Your task to perform on an android device: clear history in the chrome app Image 0: 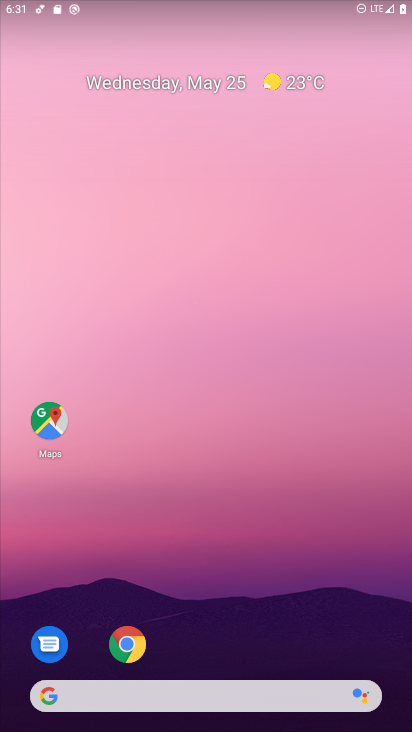
Step 0: drag from (365, 663) to (354, 16)
Your task to perform on an android device: clear history in the chrome app Image 1: 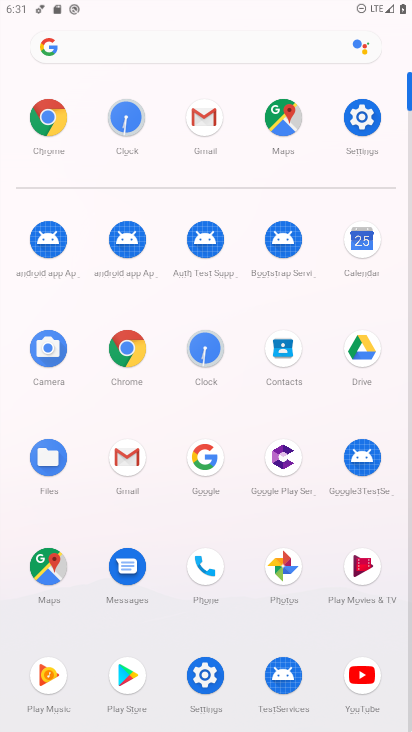
Step 1: click (39, 115)
Your task to perform on an android device: clear history in the chrome app Image 2: 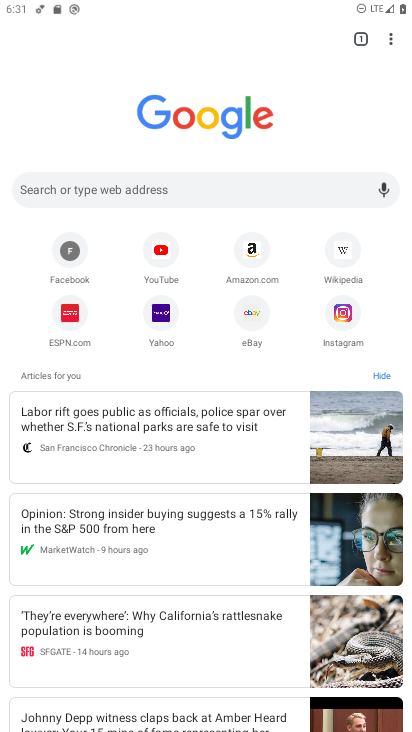
Step 2: click (395, 38)
Your task to perform on an android device: clear history in the chrome app Image 3: 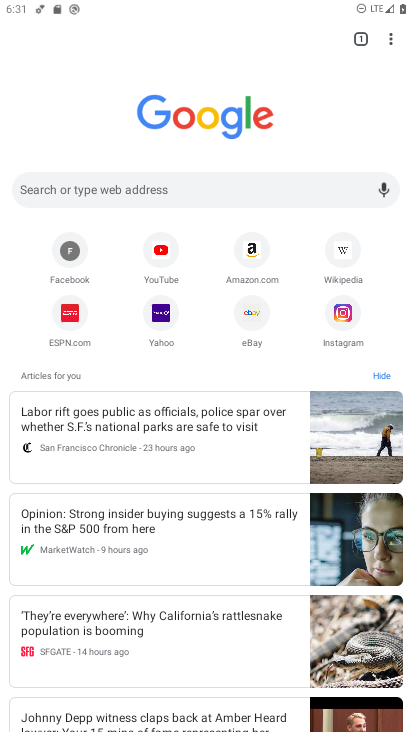
Step 3: click (391, 32)
Your task to perform on an android device: clear history in the chrome app Image 4: 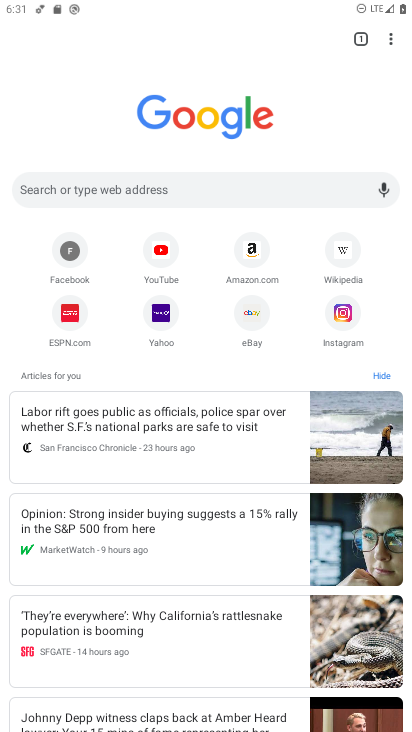
Step 4: click (391, 32)
Your task to perform on an android device: clear history in the chrome app Image 5: 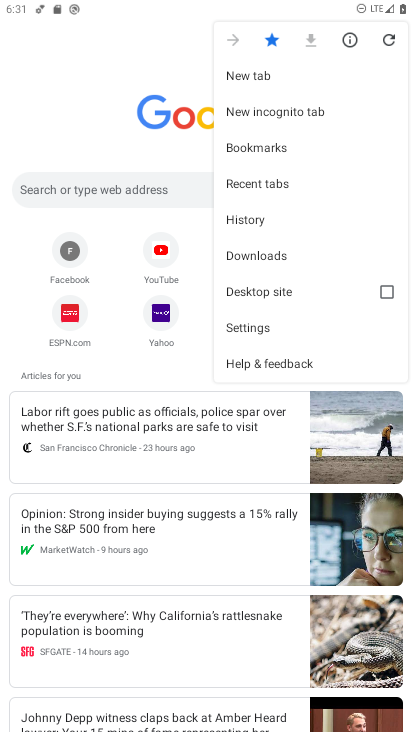
Step 5: click (255, 230)
Your task to perform on an android device: clear history in the chrome app Image 6: 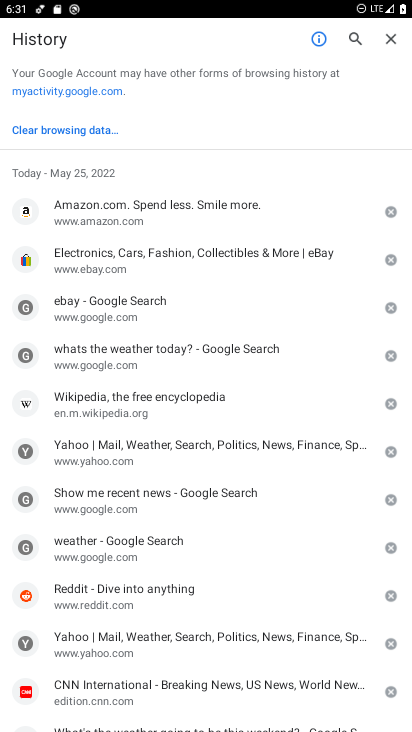
Step 6: click (91, 133)
Your task to perform on an android device: clear history in the chrome app Image 7: 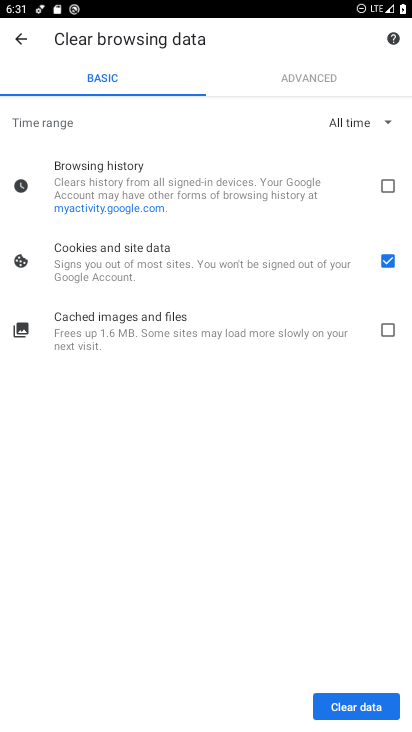
Step 7: click (331, 169)
Your task to perform on an android device: clear history in the chrome app Image 8: 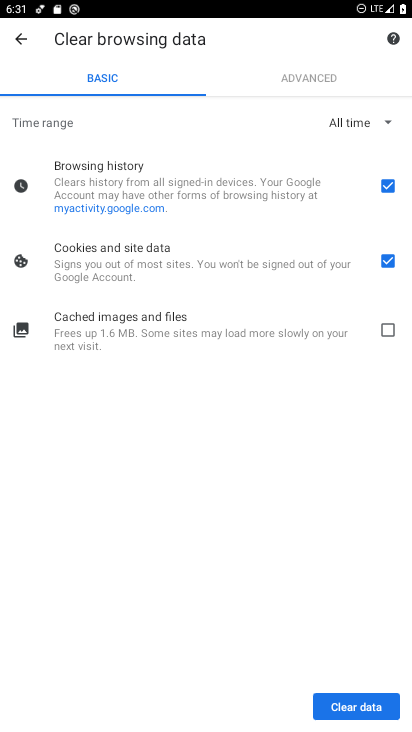
Step 8: click (327, 711)
Your task to perform on an android device: clear history in the chrome app Image 9: 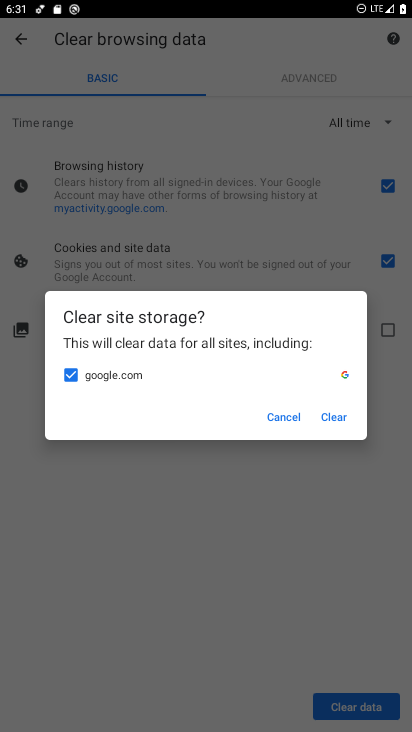
Step 9: click (346, 413)
Your task to perform on an android device: clear history in the chrome app Image 10: 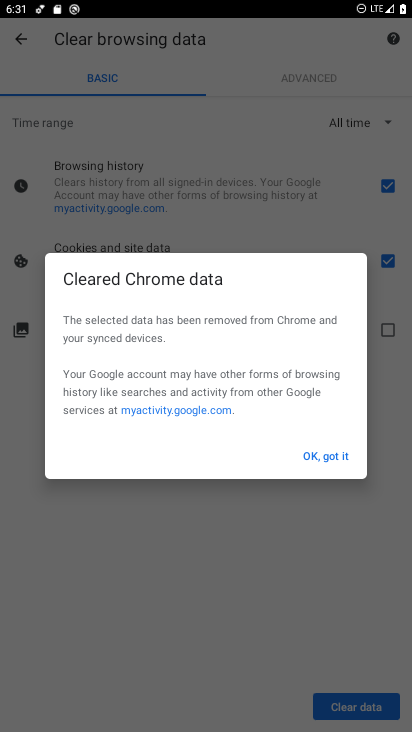
Step 10: click (330, 455)
Your task to perform on an android device: clear history in the chrome app Image 11: 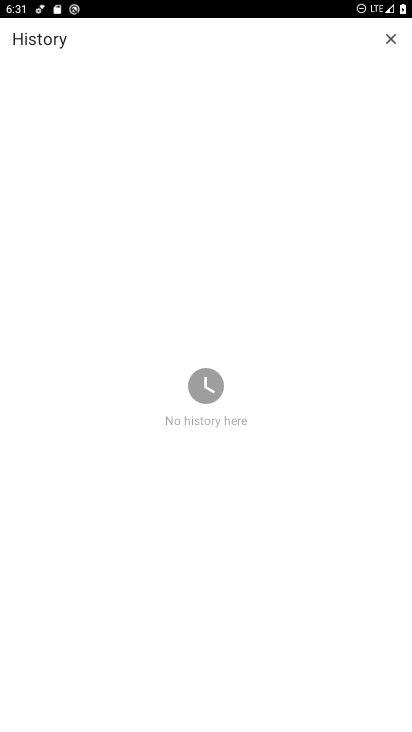
Step 11: task complete